Your task to perform on an android device: See recent photos Image 0: 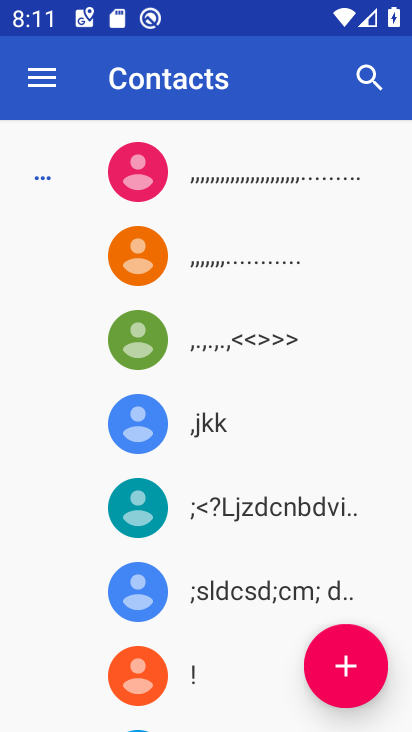
Step 0: press home button
Your task to perform on an android device: See recent photos Image 1: 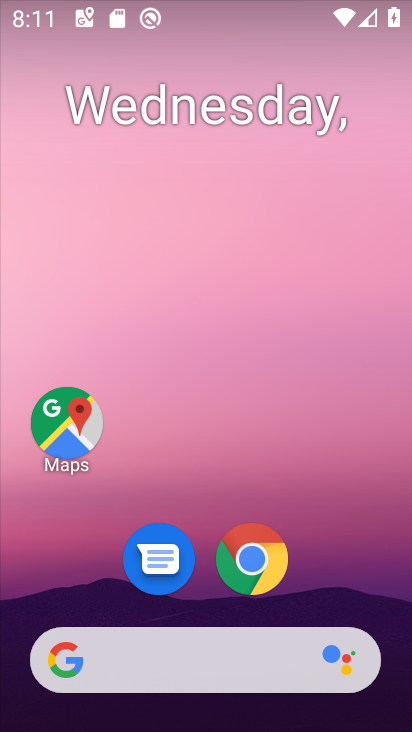
Step 1: drag from (337, 562) to (344, 85)
Your task to perform on an android device: See recent photos Image 2: 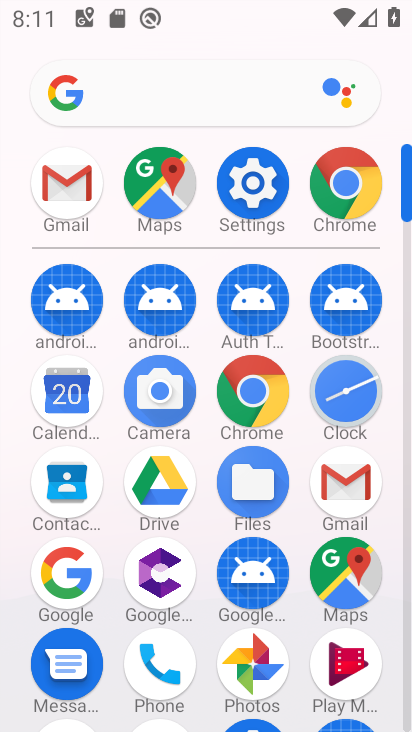
Step 2: click (261, 646)
Your task to perform on an android device: See recent photos Image 3: 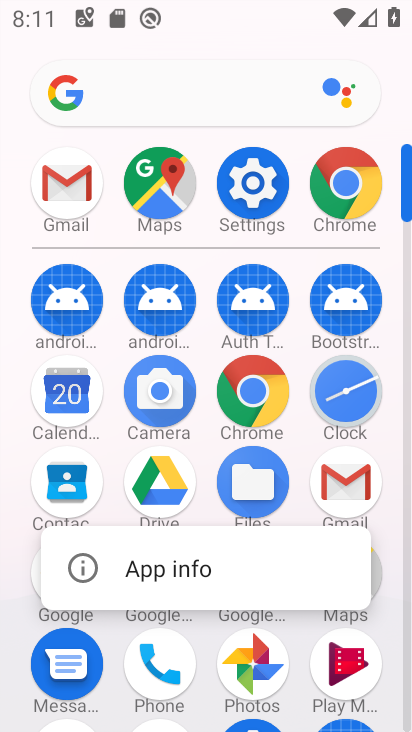
Step 3: click (261, 654)
Your task to perform on an android device: See recent photos Image 4: 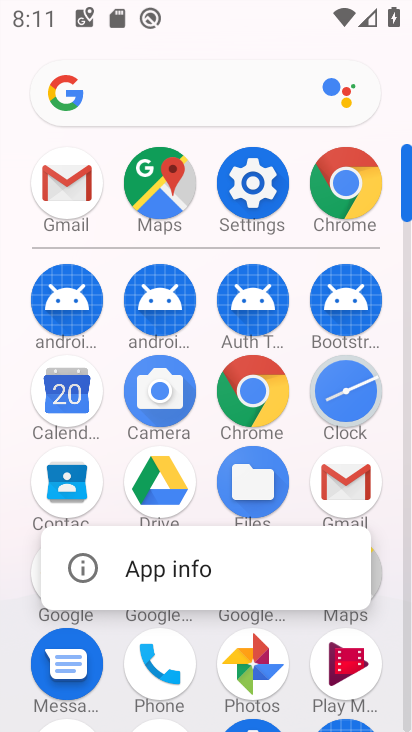
Step 4: click (261, 654)
Your task to perform on an android device: See recent photos Image 5: 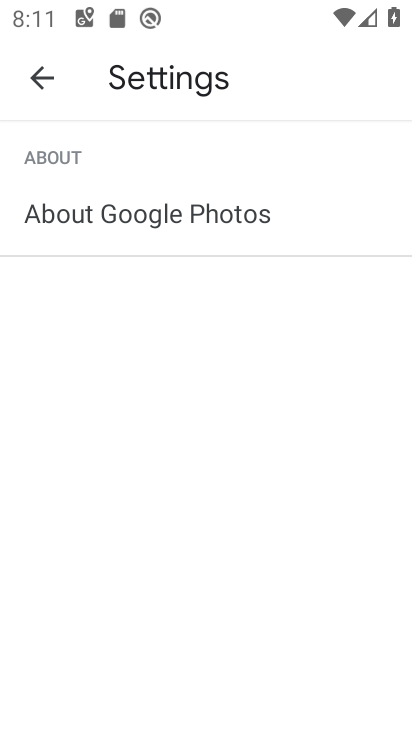
Step 5: click (41, 68)
Your task to perform on an android device: See recent photos Image 6: 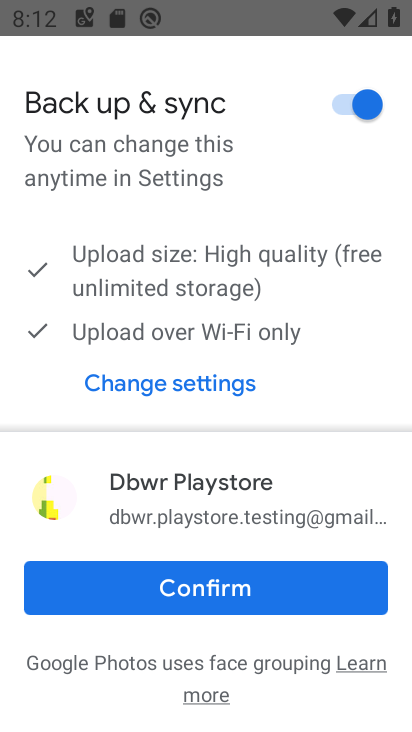
Step 6: click (227, 580)
Your task to perform on an android device: See recent photos Image 7: 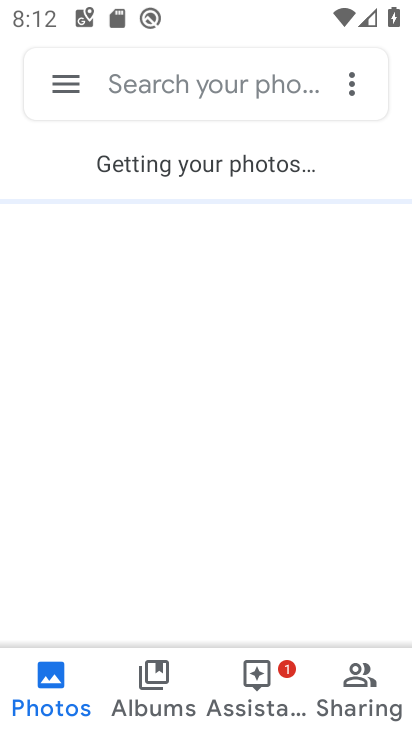
Step 7: click (38, 687)
Your task to perform on an android device: See recent photos Image 8: 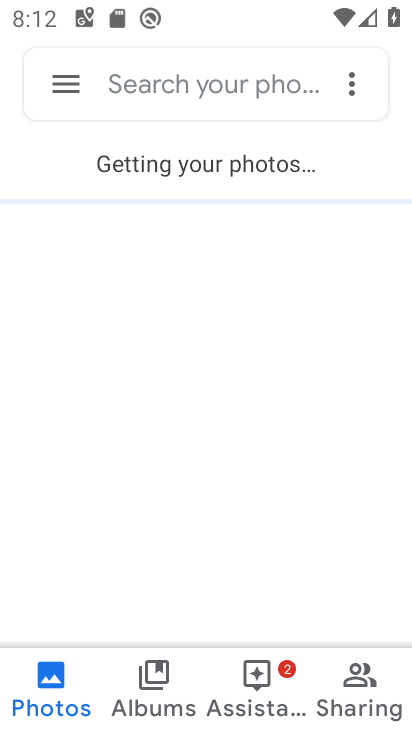
Step 8: task complete